Your task to perform on an android device: See recent photos Image 0: 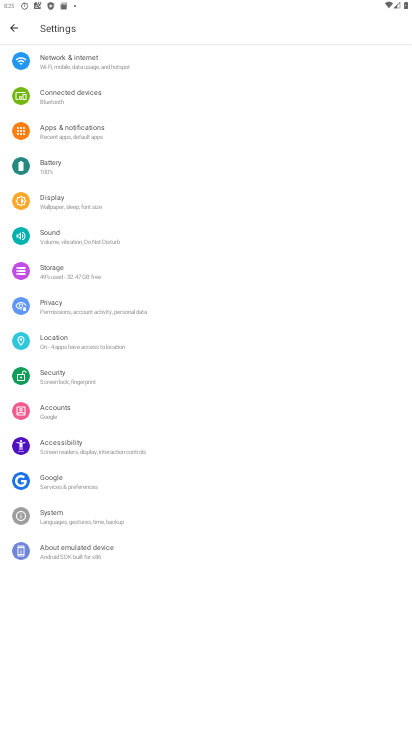
Step 0: drag from (222, 685) to (274, 408)
Your task to perform on an android device: See recent photos Image 1: 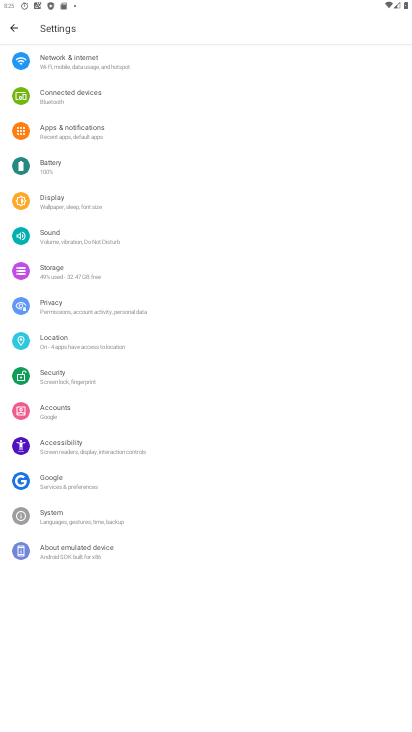
Step 1: drag from (256, 591) to (221, 265)
Your task to perform on an android device: See recent photos Image 2: 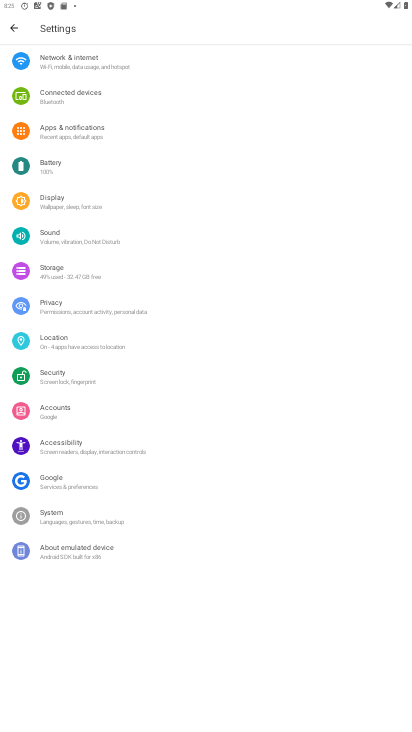
Step 2: press home button
Your task to perform on an android device: See recent photos Image 3: 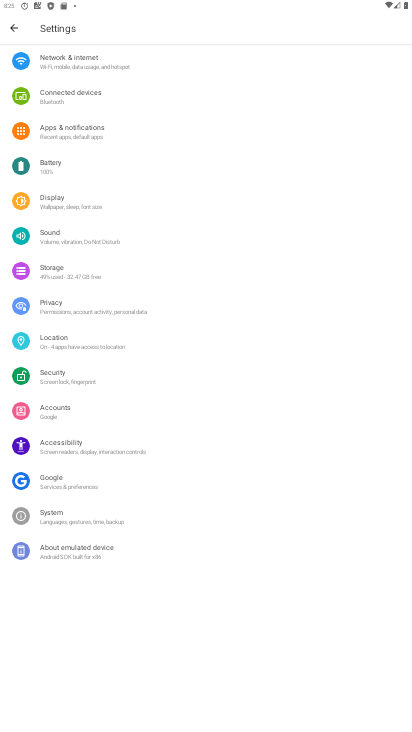
Step 3: press home button
Your task to perform on an android device: See recent photos Image 4: 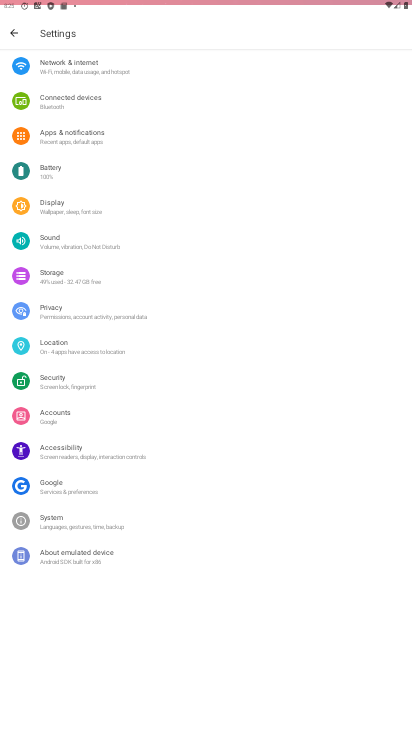
Step 4: drag from (209, 477) to (275, 293)
Your task to perform on an android device: See recent photos Image 5: 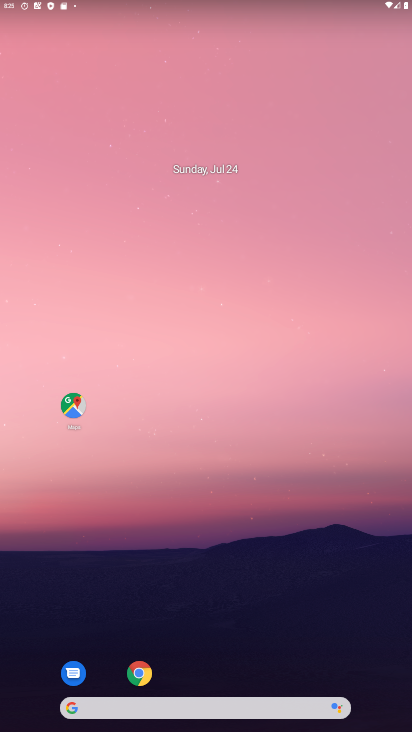
Step 5: drag from (183, 652) to (381, 190)
Your task to perform on an android device: See recent photos Image 6: 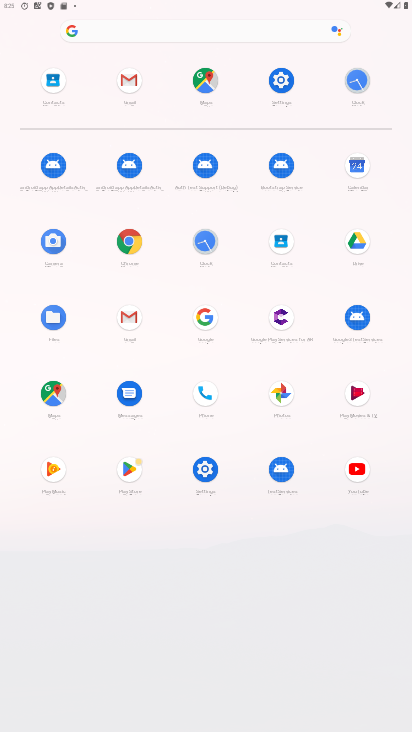
Step 6: drag from (255, 644) to (275, 440)
Your task to perform on an android device: See recent photos Image 7: 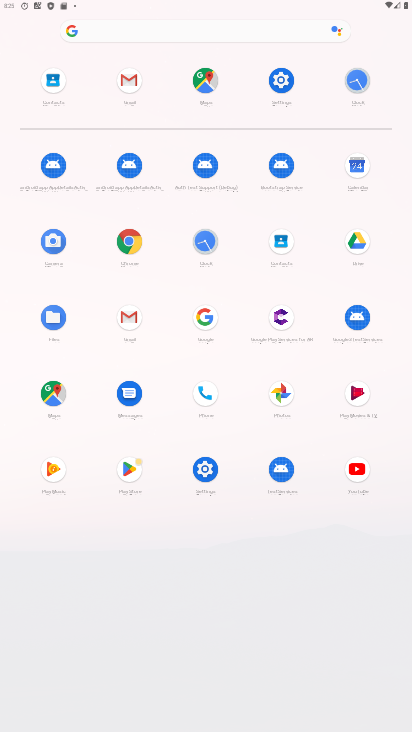
Step 7: click (273, 397)
Your task to perform on an android device: See recent photos Image 8: 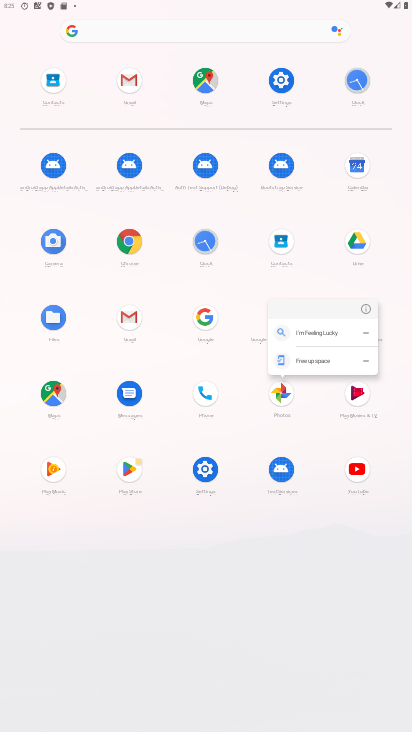
Step 8: click (366, 308)
Your task to perform on an android device: See recent photos Image 9: 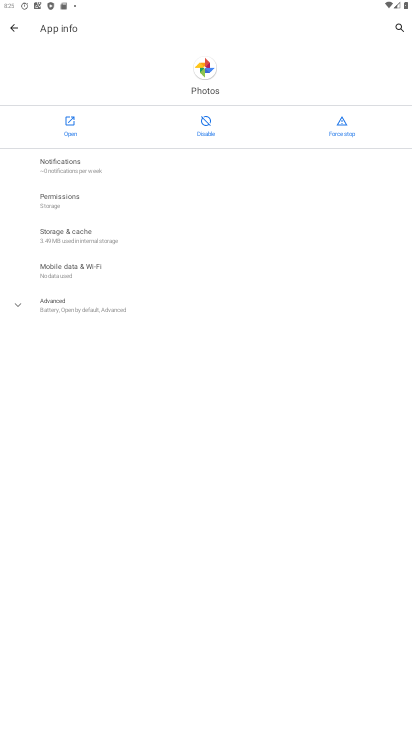
Step 9: click (74, 133)
Your task to perform on an android device: See recent photos Image 10: 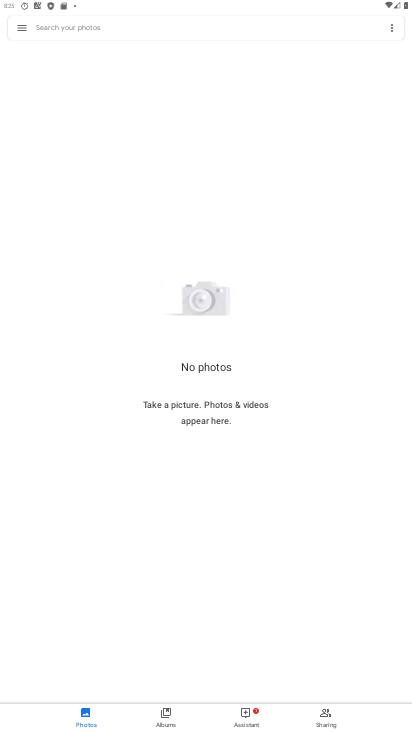
Step 10: drag from (224, 524) to (246, 81)
Your task to perform on an android device: See recent photos Image 11: 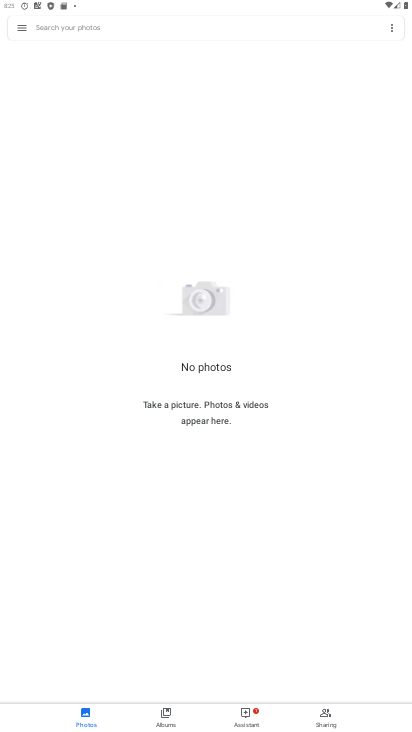
Step 11: drag from (292, 637) to (256, 277)
Your task to perform on an android device: See recent photos Image 12: 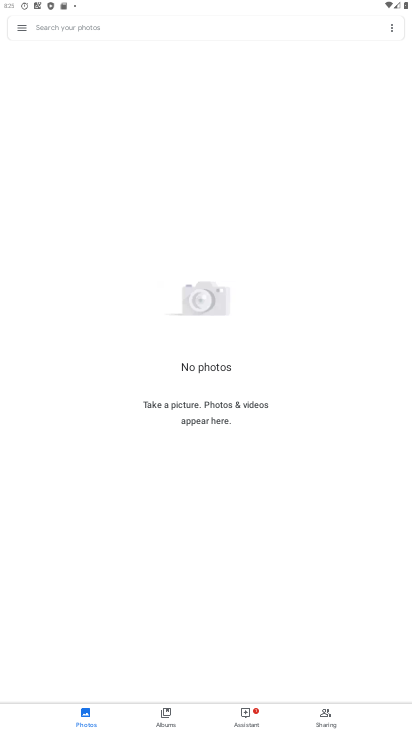
Step 12: drag from (231, 504) to (255, 284)
Your task to perform on an android device: See recent photos Image 13: 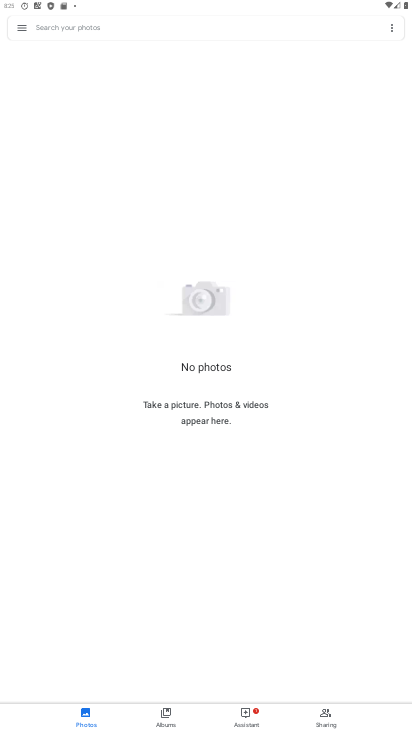
Step 13: drag from (261, 539) to (251, 334)
Your task to perform on an android device: See recent photos Image 14: 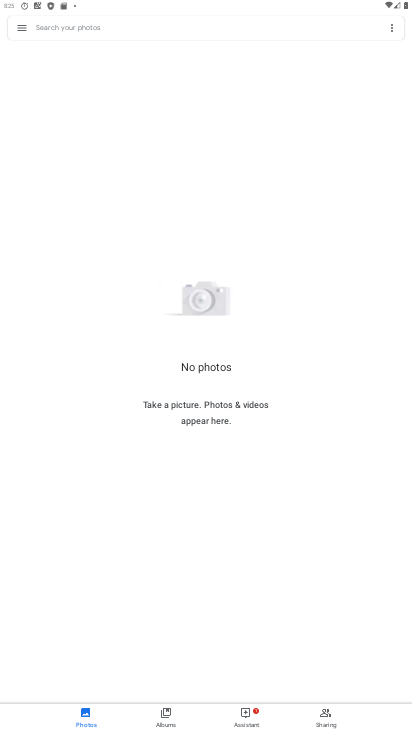
Step 14: click (240, 720)
Your task to perform on an android device: See recent photos Image 15: 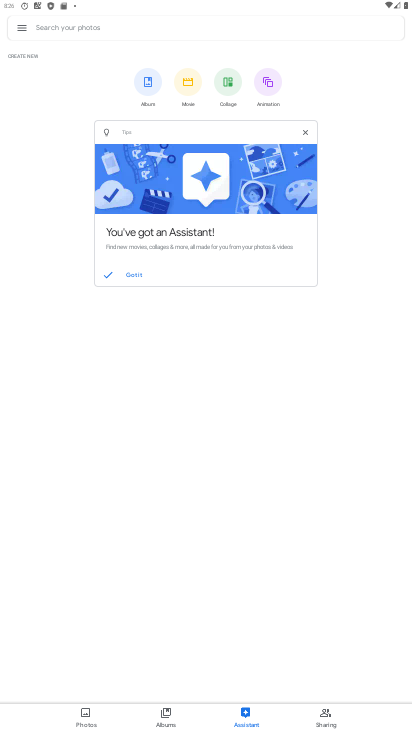
Step 15: task complete